Your task to perform on an android device: What's the weather today? Image 0: 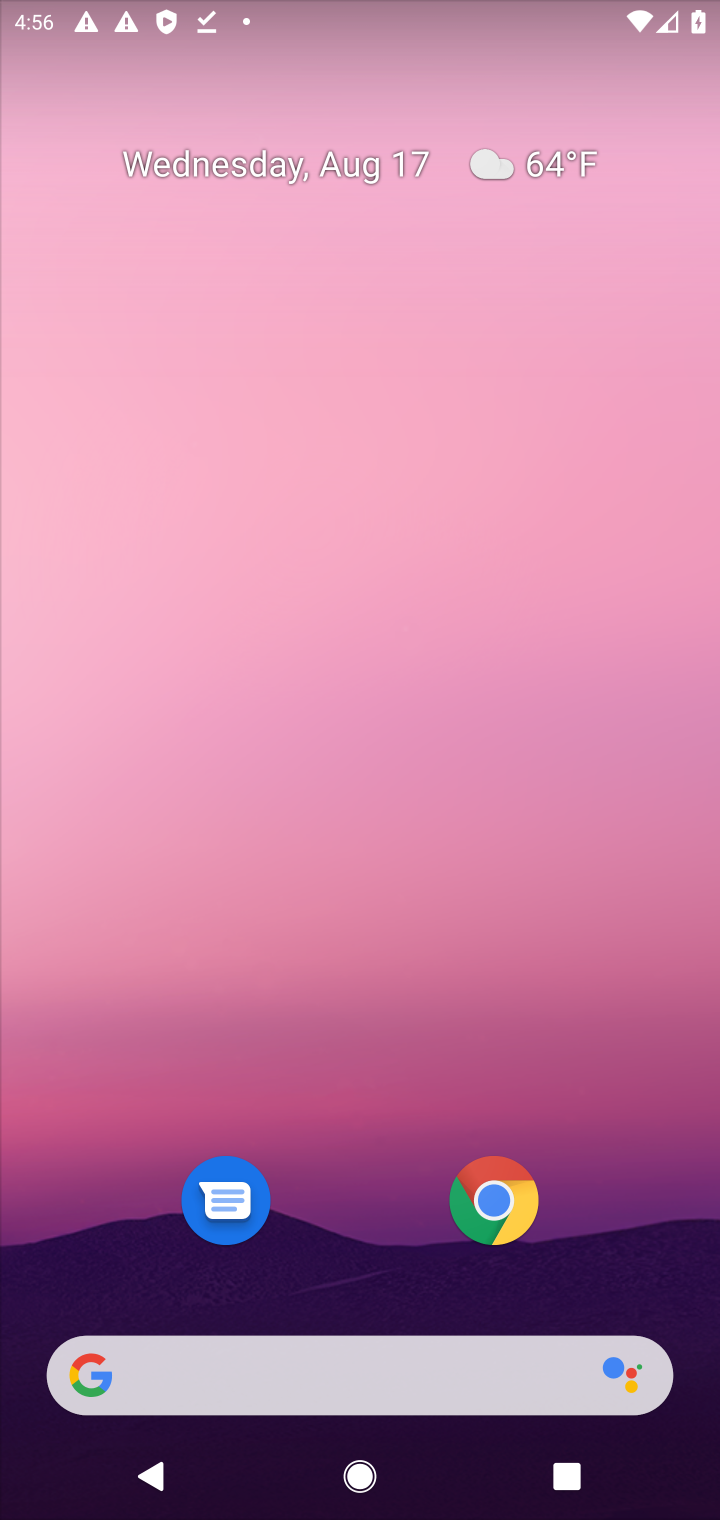
Step 0: drag from (449, 150) to (536, 93)
Your task to perform on an android device: What's the weather today? Image 1: 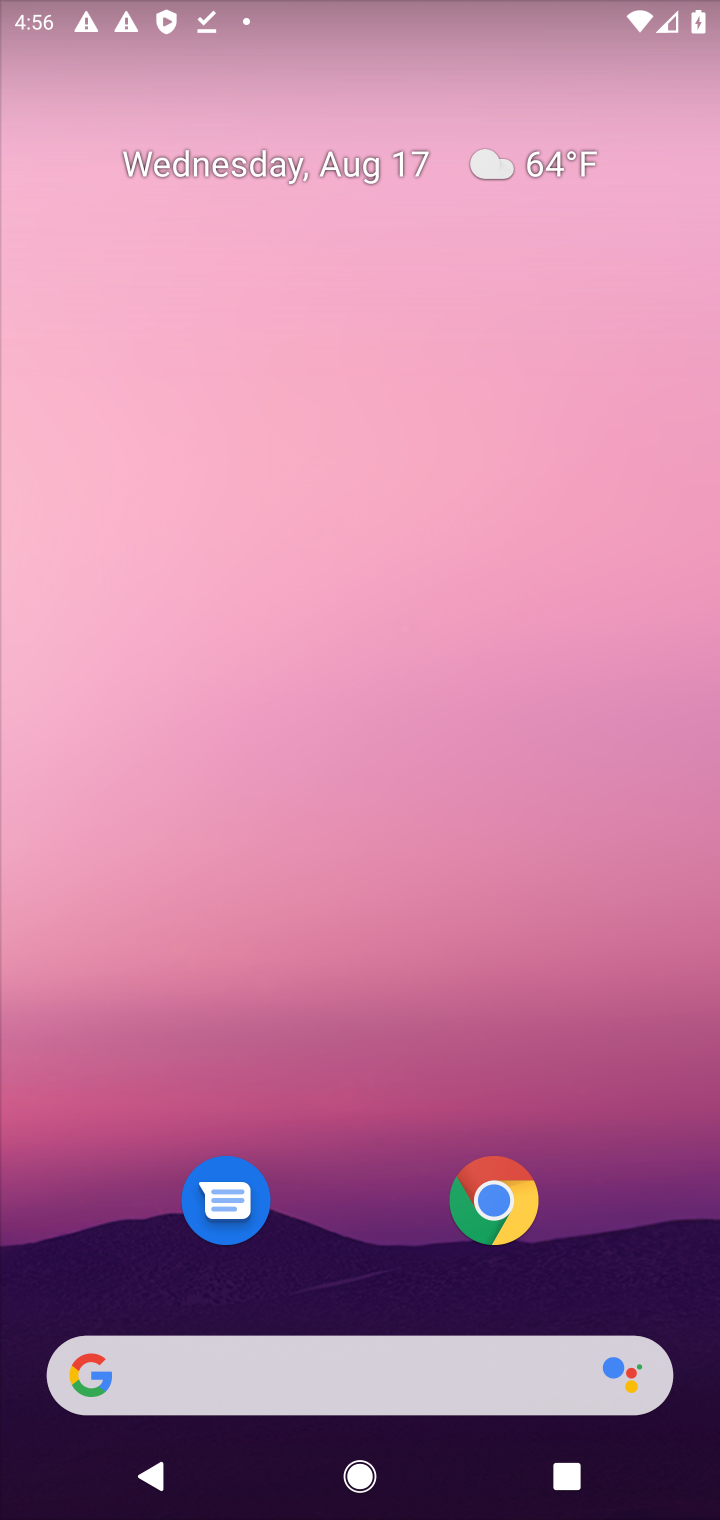
Step 1: drag from (368, 1065) to (353, 3)
Your task to perform on an android device: What's the weather today? Image 2: 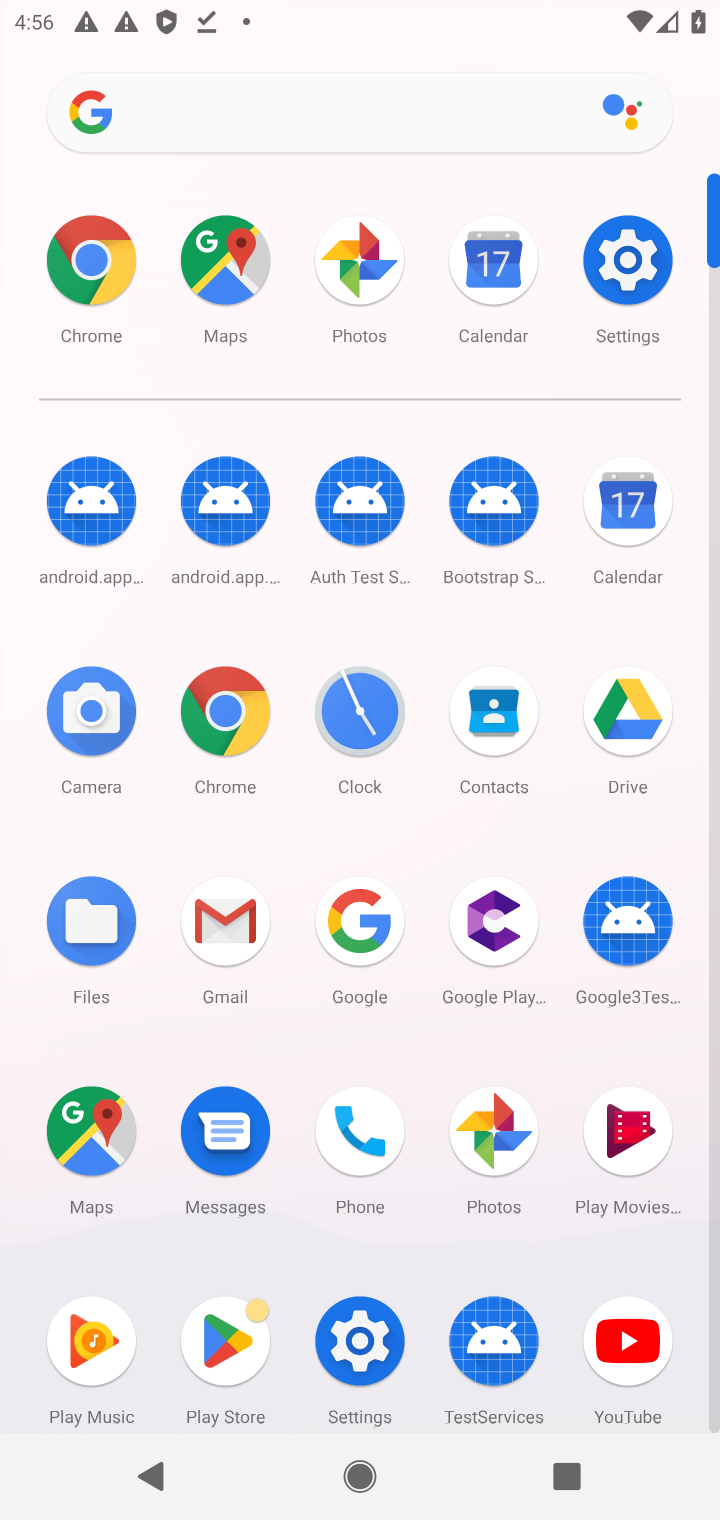
Step 2: click (373, 922)
Your task to perform on an android device: What's the weather today? Image 3: 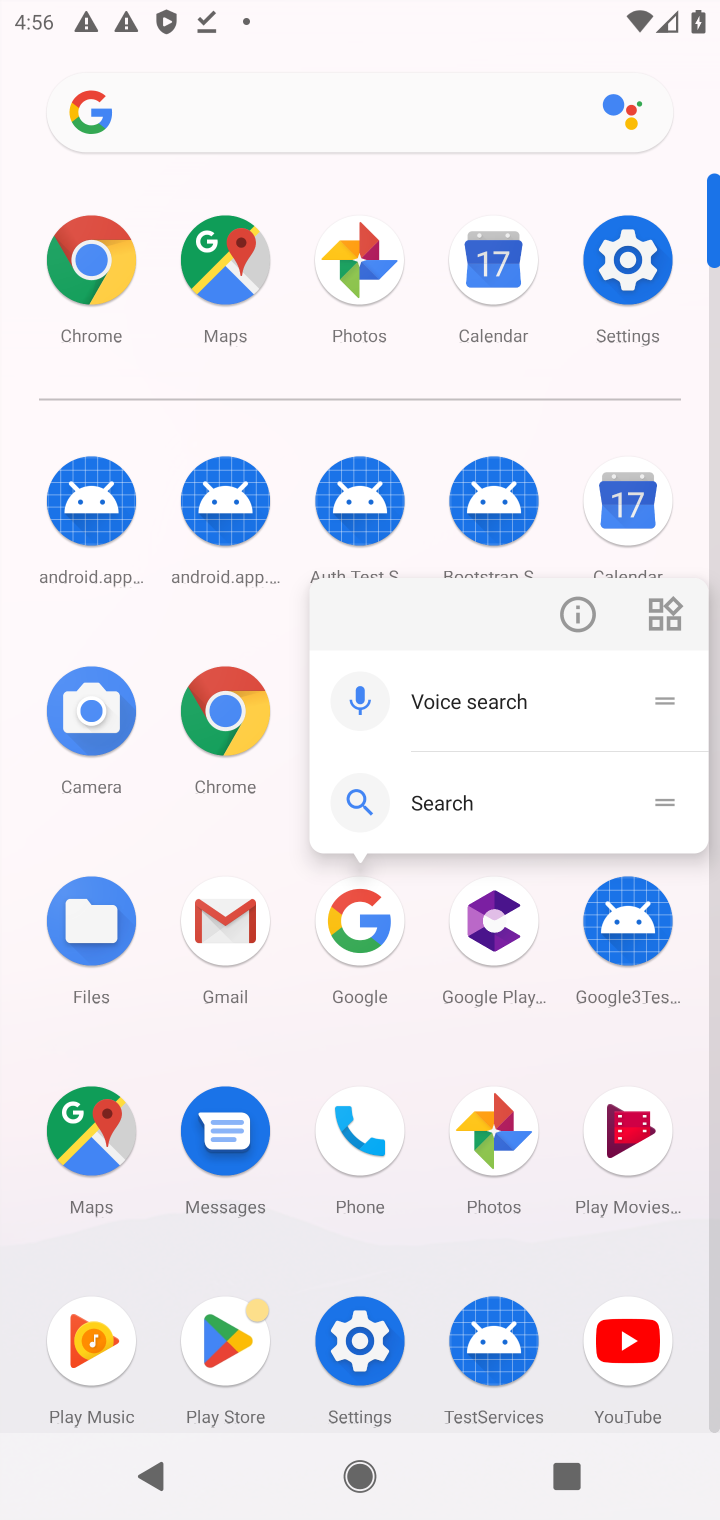
Step 3: click (359, 920)
Your task to perform on an android device: What's the weather today? Image 4: 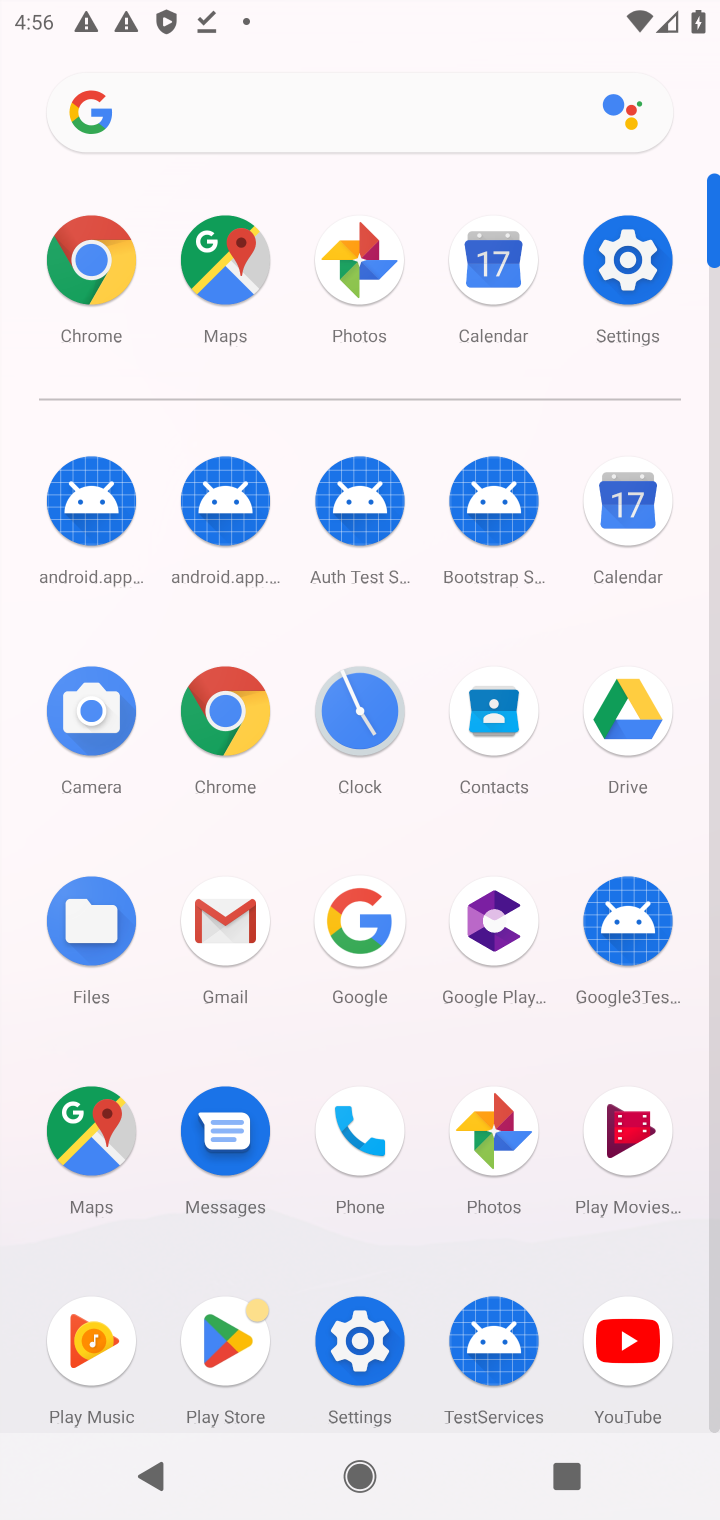
Step 4: click (359, 922)
Your task to perform on an android device: What's the weather today? Image 5: 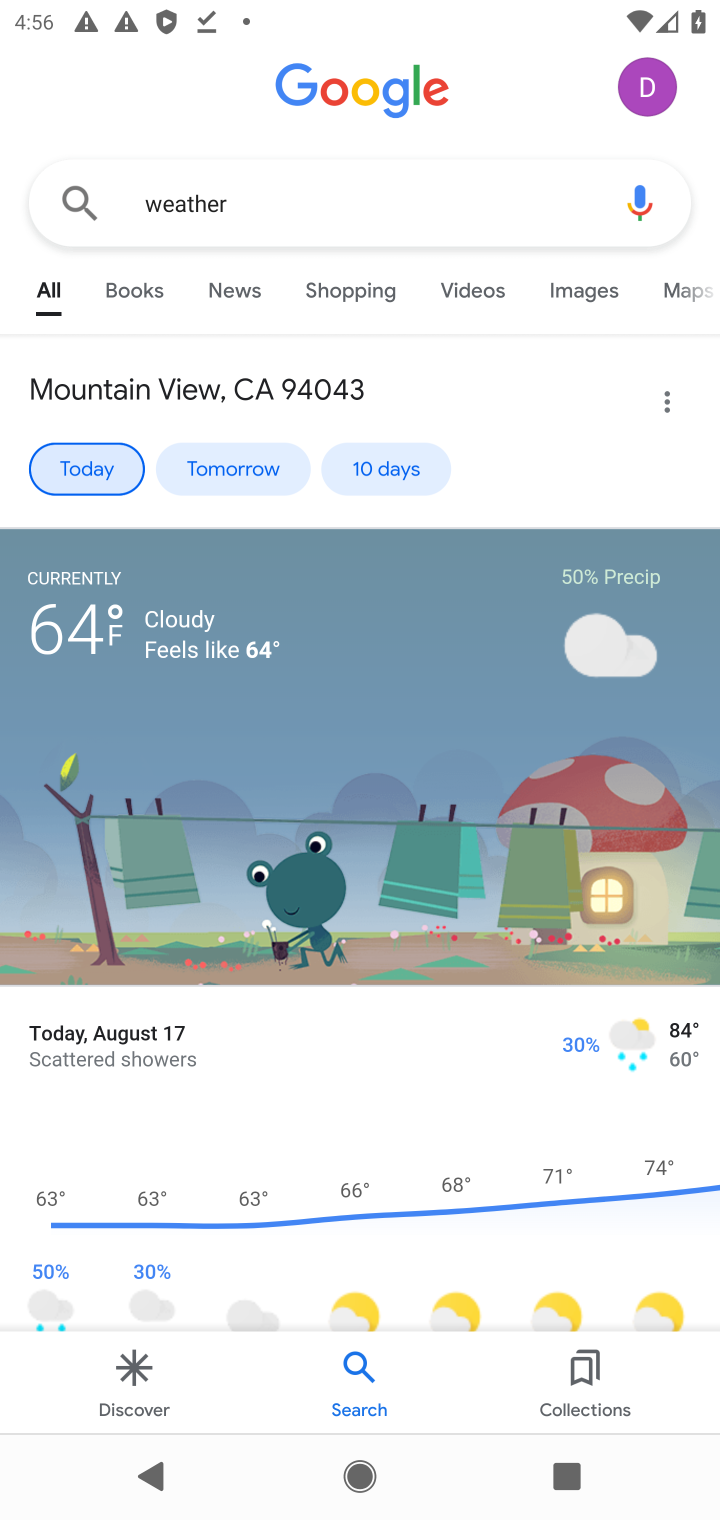
Step 5: click (359, 922)
Your task to perform on an android device: What's the weather today? Image 6: 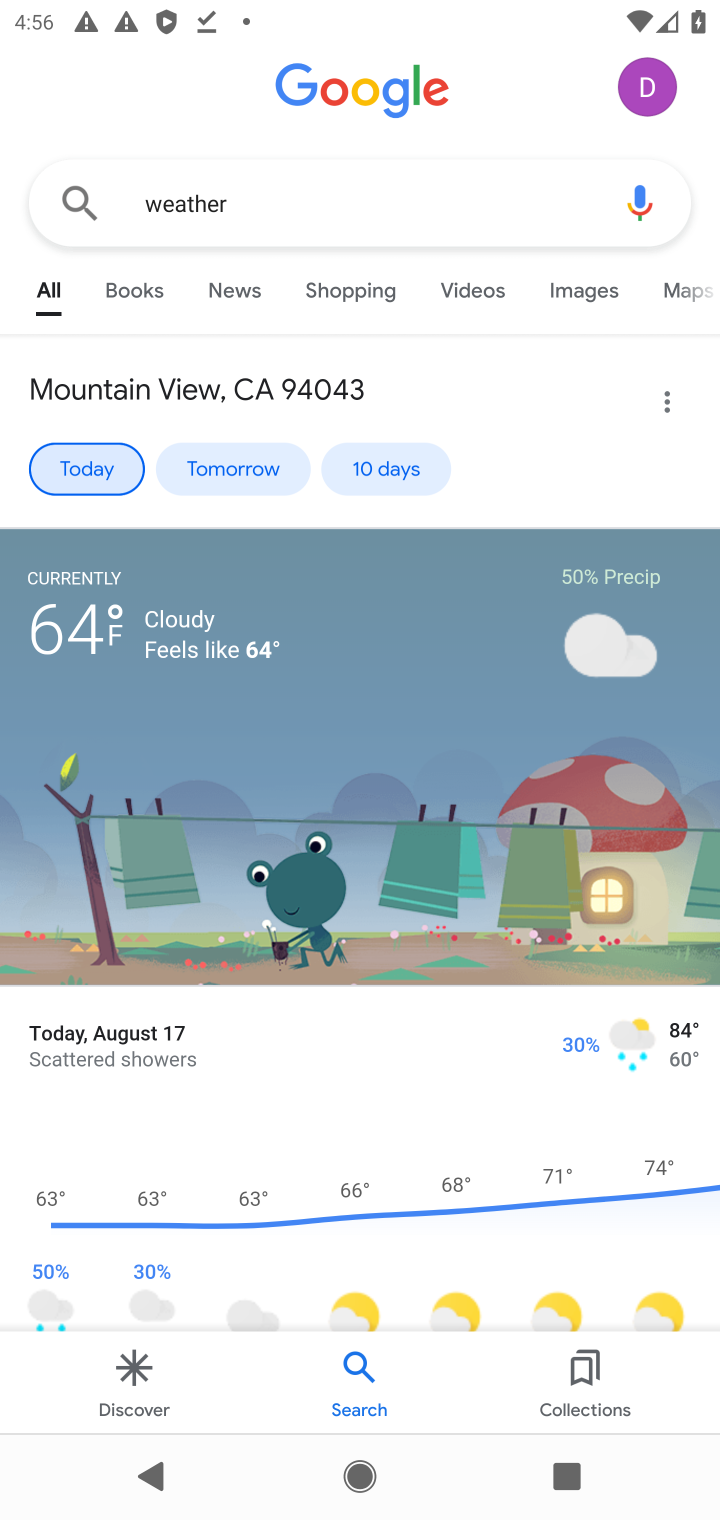
Step 6: click (89, 466)
Your task to perform on an android device: What's the weather today? Image 7: 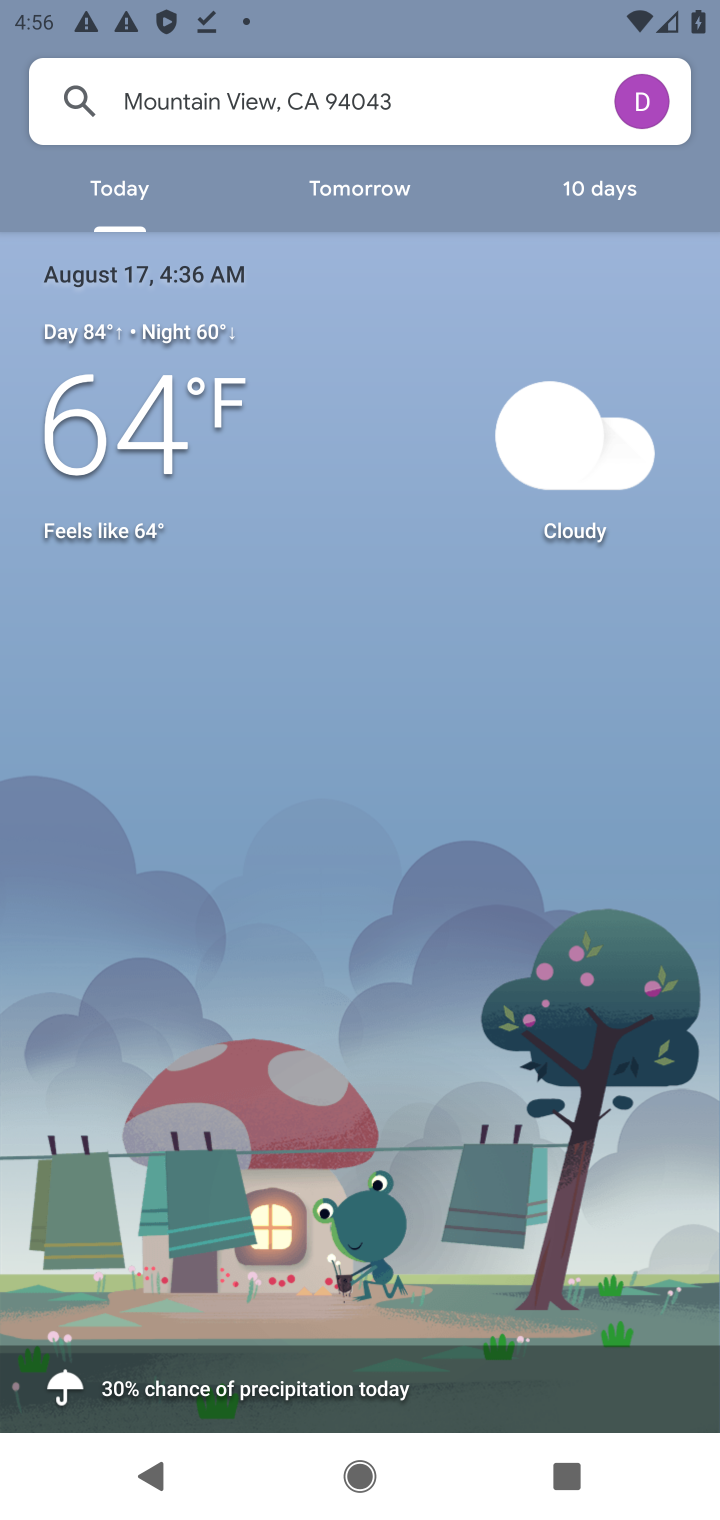
Step 7: task complete